Your task to perform on an android device: Open the calendar and show me this week's events? Image 0: 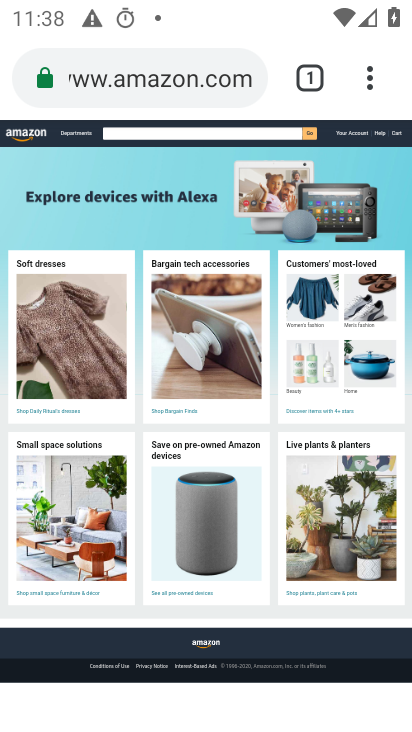
Step 0: press home button
Your task to perform on an android device: Open the calendar and show me this week's events? Image 1: 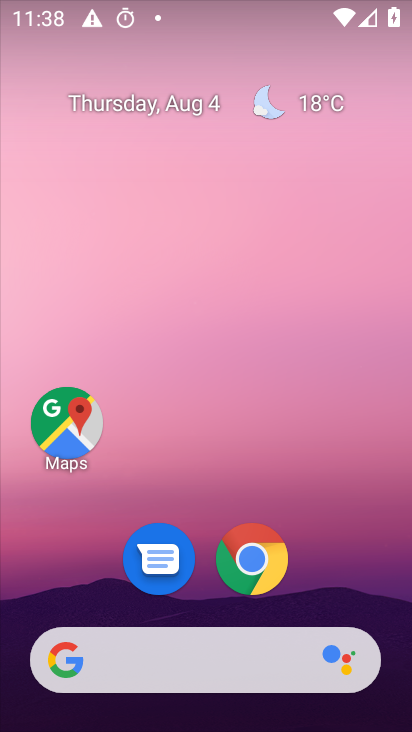
Step 1: drag from (10, 712) to (201, 285)
Your task to perform on an android device: Open the calendar and show me this week's events? Image 2: 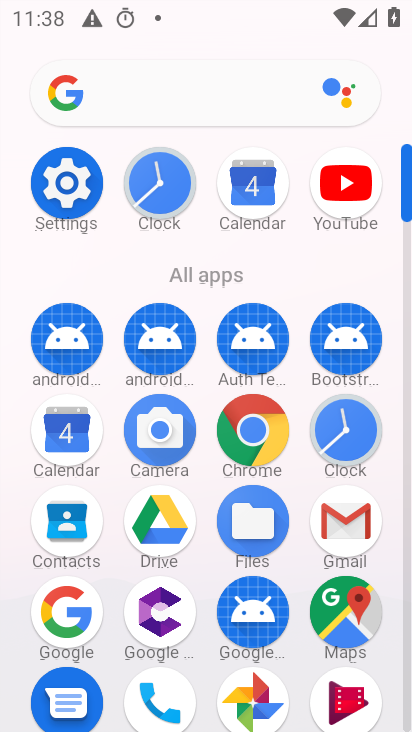
Step 2: click (52, 431)
Your task to perform on an android device: Open the calendar and show me this week's events? Image 3: 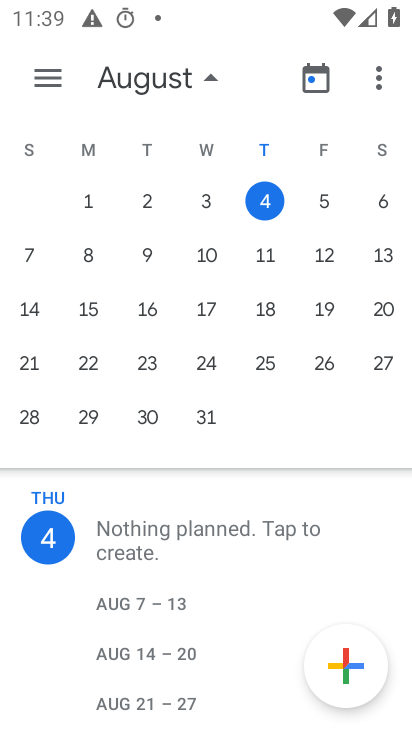
Step 3: task complete